Your task to perform on an android device: turn on sleep mode Image 0: 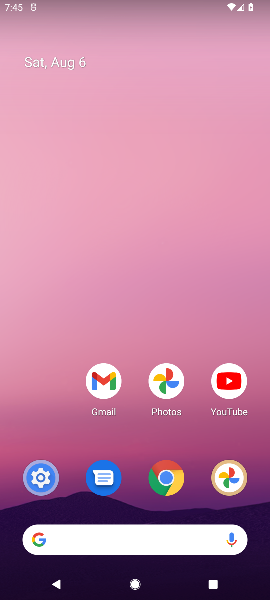
Step 0: press home button
Your task to perform on an android device: turn on sleep mode Image 1: 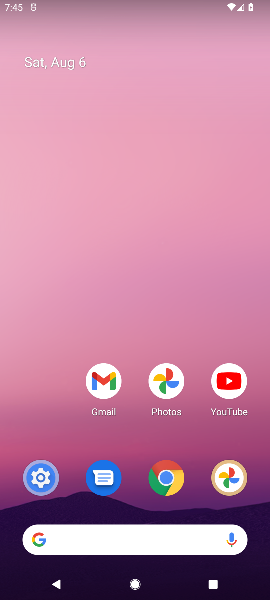
Step 1: click (37, 479)
Your task to perform on an android device: turn on sleep mode Image 2: 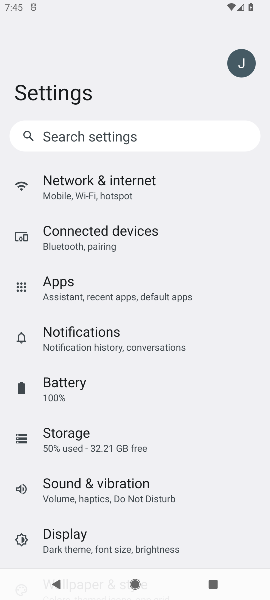
Step 2: click (80, 540)
Your task to perform on an android device: turn on sleep mode Image 3: 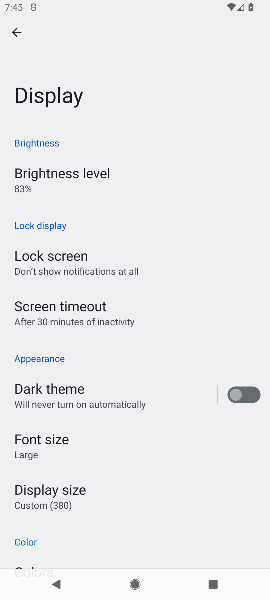
Step 3: task complete